Your task to perform on an android device: Go to Google maps Image 0: 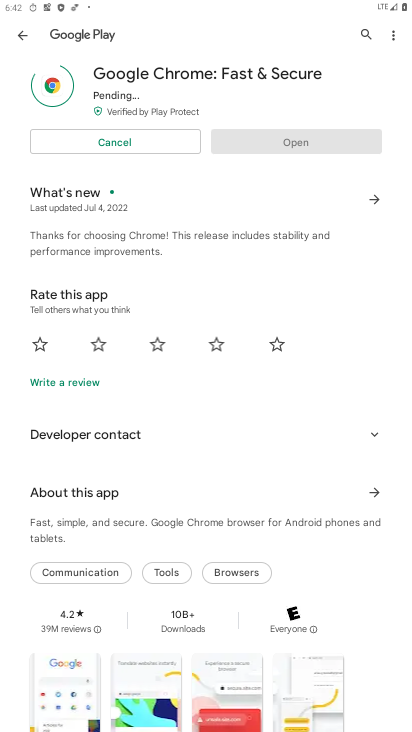
Step 0: press home button
Your task to perform on an android device: Go to Google maps Image 1: 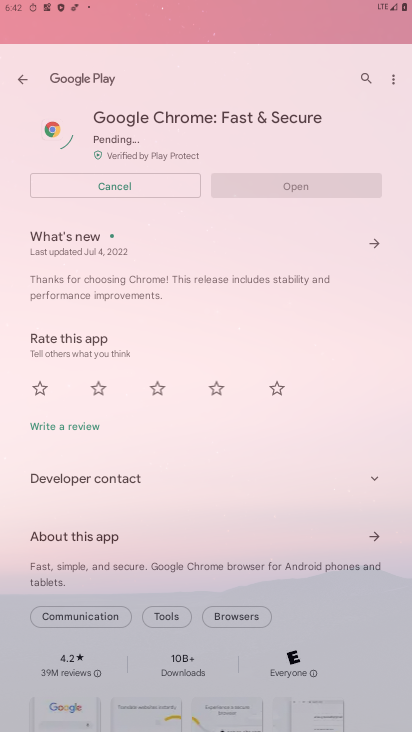
Step 1: drag from (390, 688) to (299, 55)
Your task to perform on an android device: Go to Google maps Image 2: 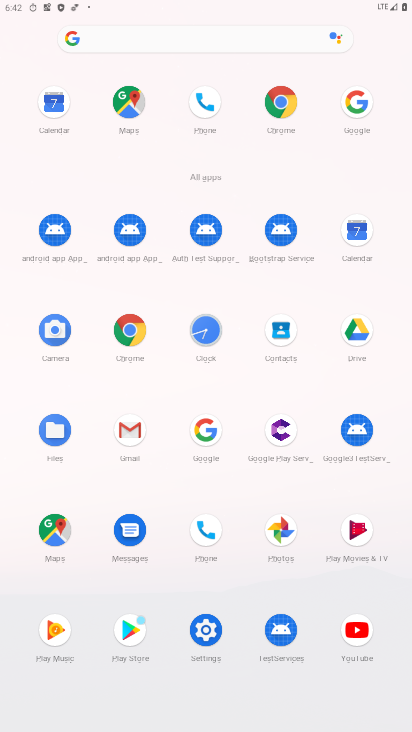
Step 2: click (117, 110)
Your task to perform on an android device: Go to Google maps Image 3: 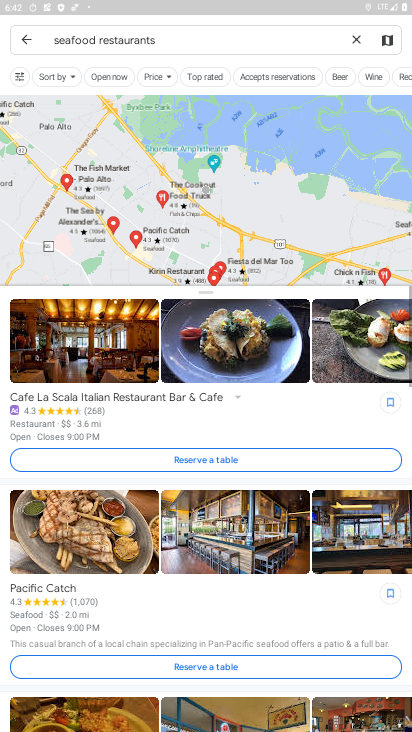
Step 3: click (358, 33)
Your task to perform on an android device: Go to Google maps Image 4: 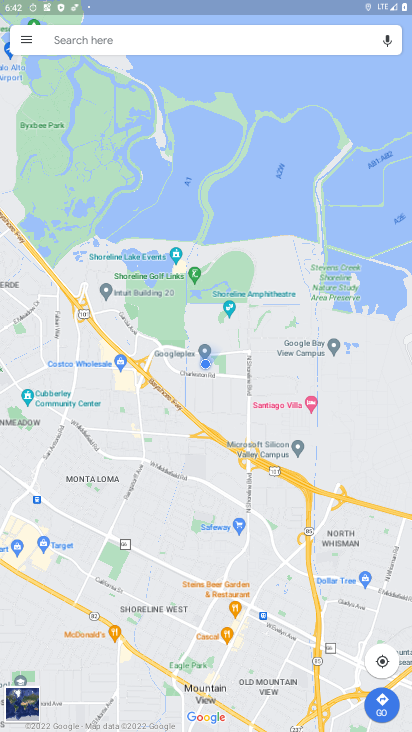
Step 4: task complete